Your task to perform on an android device: Check the news Image 0: 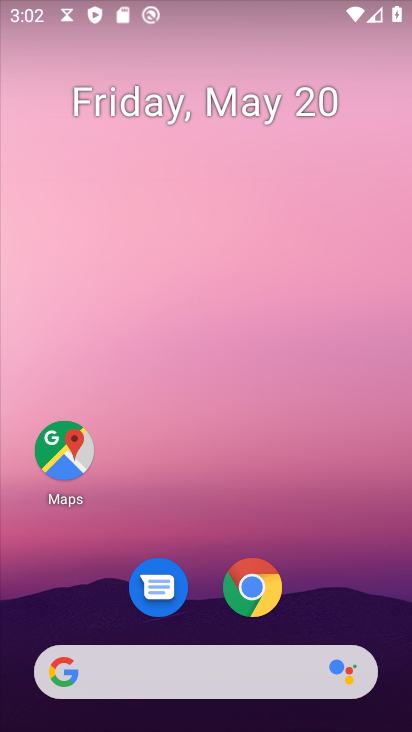
Step 0: click (250, 592)
Your task to perform on an android device: Check the news Image 1: 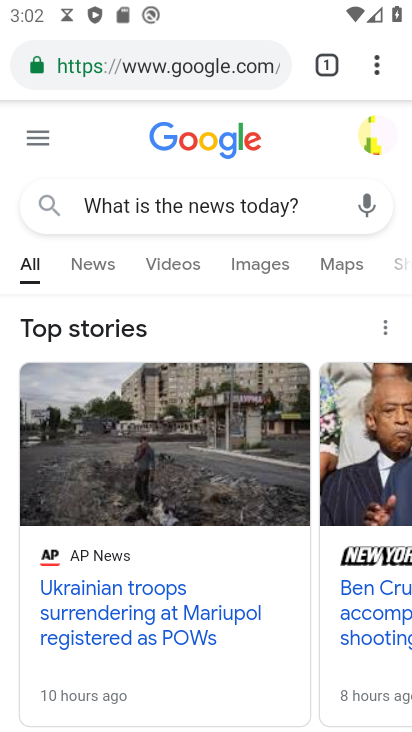
Step 1: task complete